Your task to perform on an android device: find photos in the google photos app Image 0: 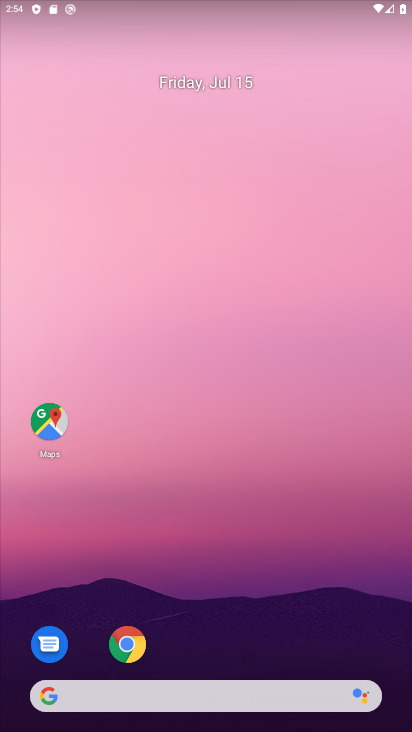
Step 0: drag from (216, 581) to (266, 72)
Your task to perform on an android device: find photos in the google photos app Image 1: 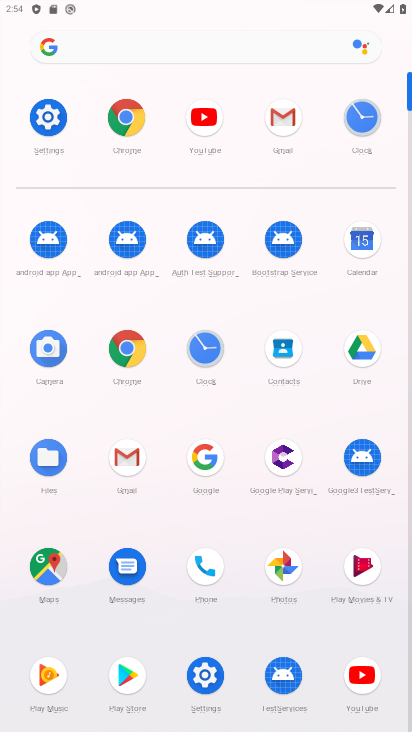
Step 1: click (278, 577)
Your task to perform on an android device: find photos in the google photos app Image 2: 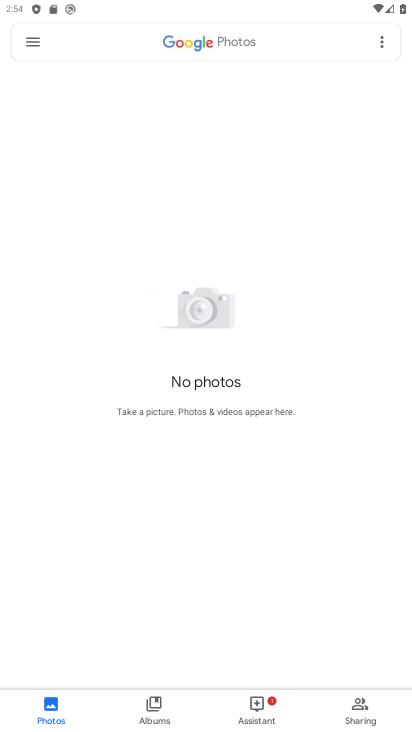
Step 2: click (45, 703)
Your task to perform on an android device: find photos in the google photos app Image 3: 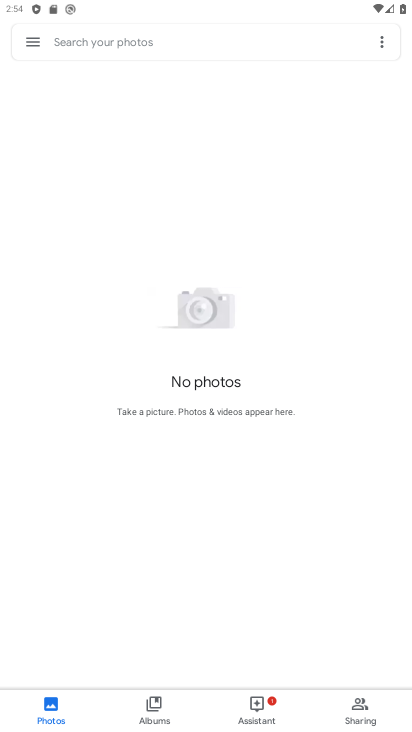
Step 3: task complete